Your task to perform on an android device: Go to CNN.com Image 0: 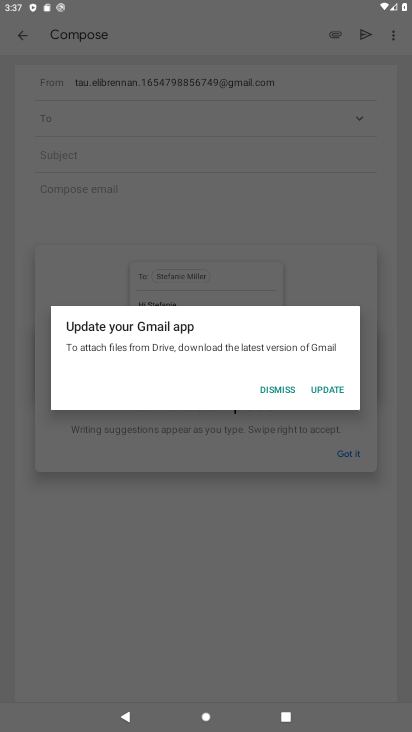
Step 0: press home button
Your task to perform on an android device: Go to CNN.com Image 1: 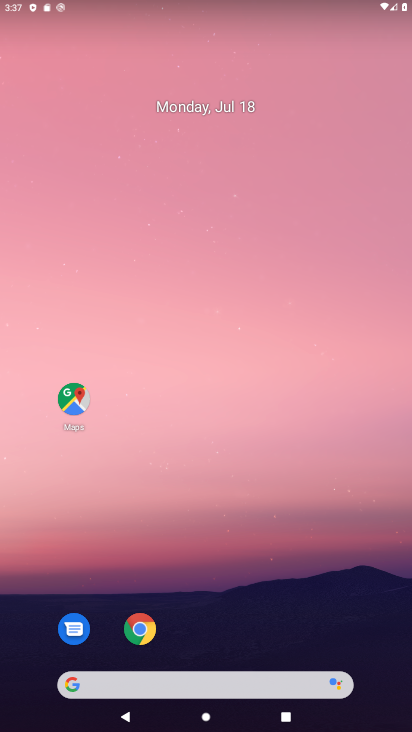
Step 1: click (135, 629)
Your task to perform on an android device: Go to CNN.com Image 2: 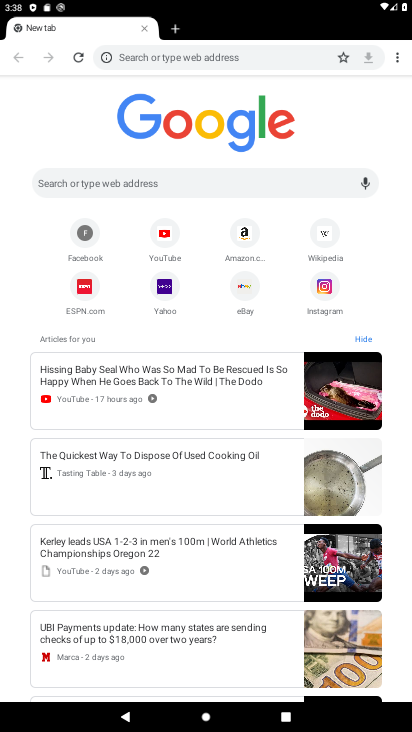
Step 2: click (134, 186)
Your task to perform on an android device: Go to CNN.com Image 3: 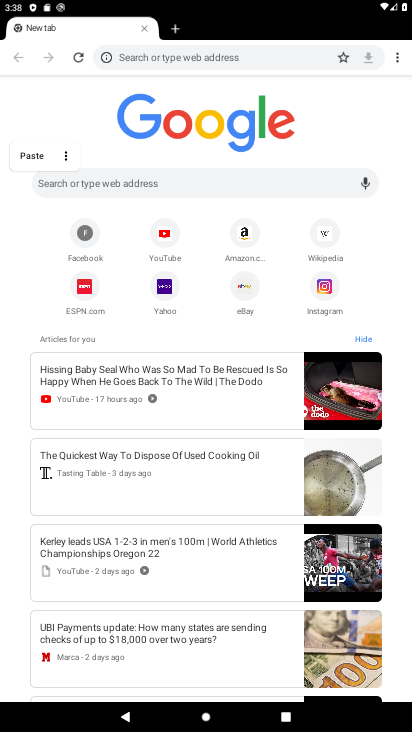
Step 3: click (256, 176)
Your task to perform on an android device: Go to CNN.com Image 4: 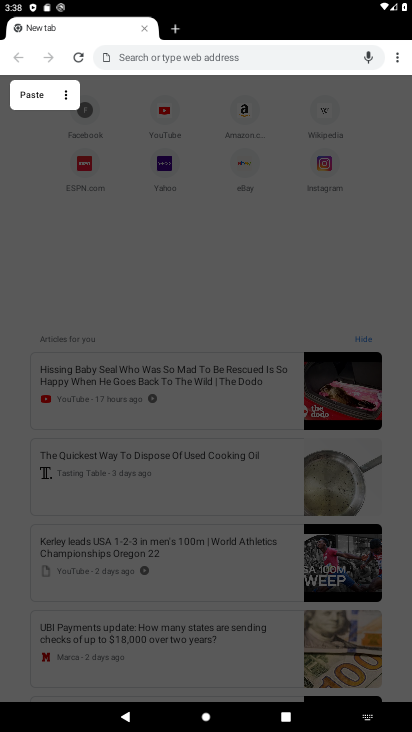
Step 4: type "CNN.com"
Your task to perform on an android device: Go to CNN.com Image 5: 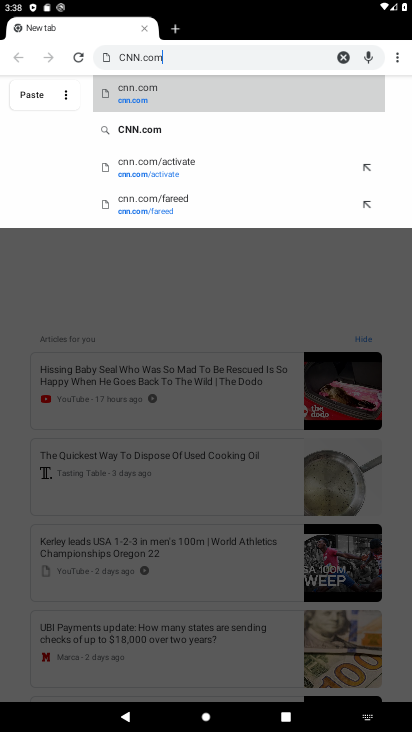
Step 5: click (231, 91)
Your task to perform on an android device: Go to CNN.com Image 6: 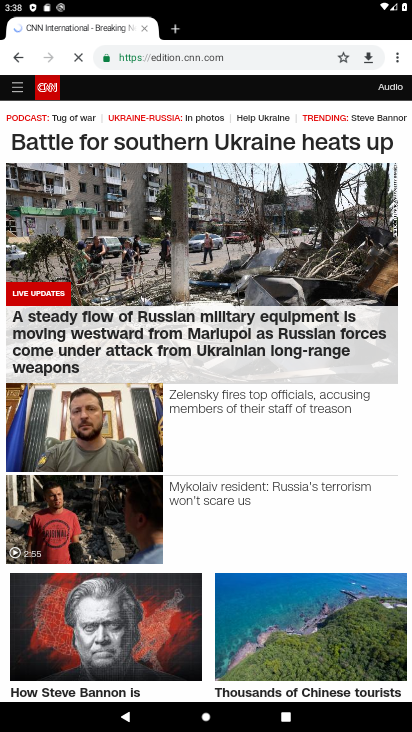
Step 6: task complete